Your task to perform on an android device: read, delete, or share a saved page in the chrome app Image 0: 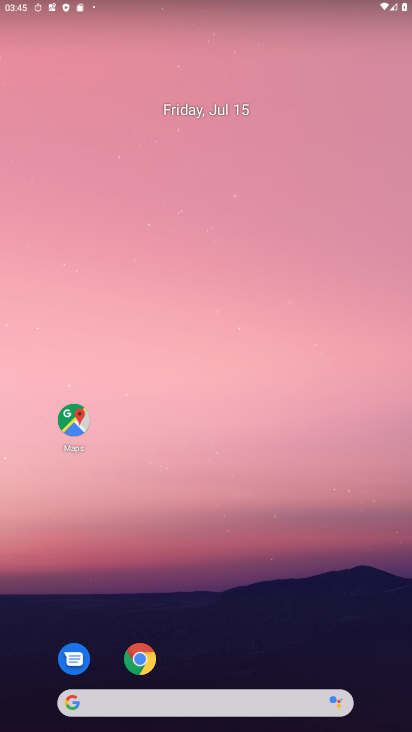
Step 0: click (142, 658)
Your task to perform on an android device: read, delete, or share a saved page in the chrome app Image 1: 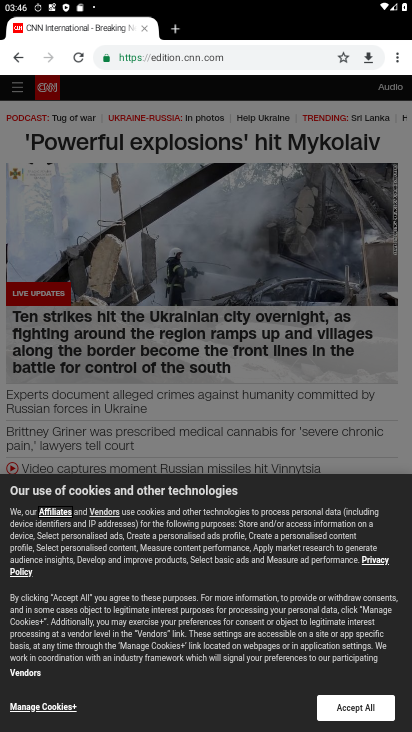
Step 1: click (394, 56)
Your task to perform on an android device: read, delete, or share a saved page in the chrome app Image 2: 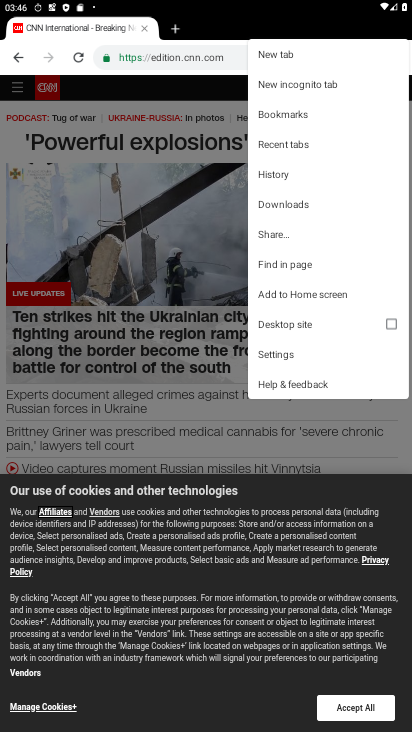
Step 2: click (273, 203)
Your task to perform on an android device: read, delete, or share a saved page in the chrome app Image 3: 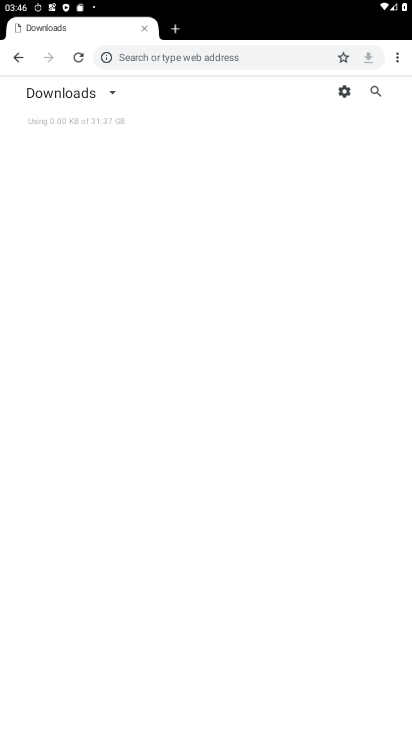
Step 3: click (113, 94)
Your task to perform on an android device: read, delete, or share a saved page in the chrome app Image 4: 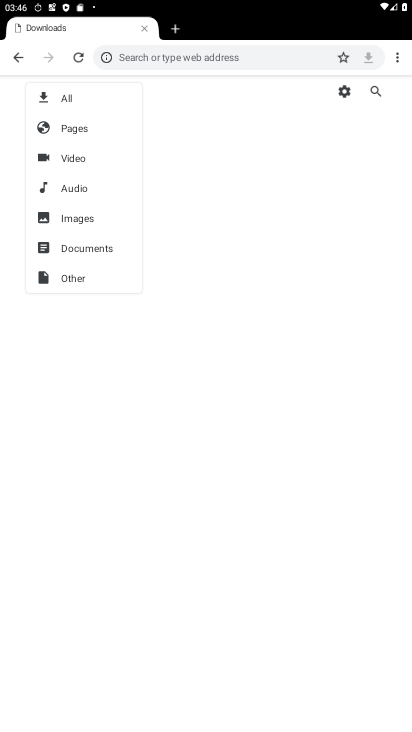
Step 4: click (72, 130)
Your task to perform on an android device: read, delete, or share a saved page in the chrome app Image 5: 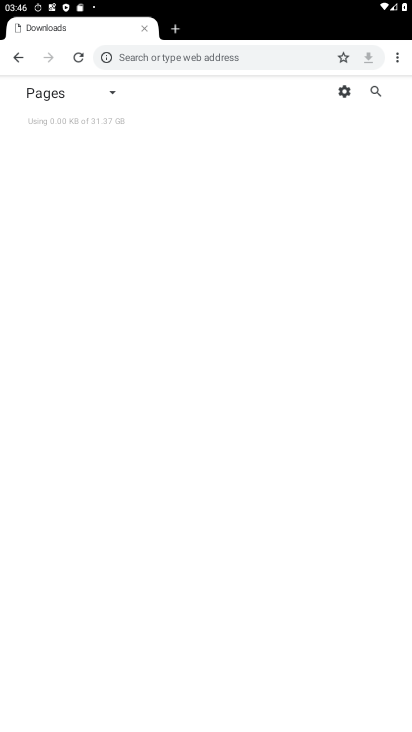
Step 5: task complete